Your task to perform on an android device: When is my next appointment? Image 0: 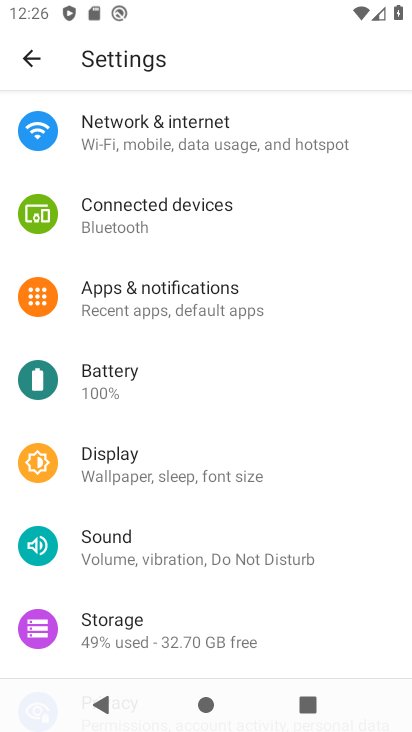
Step 0: press home button
Your task to perform on an android device: When is my next appointment? Image 1: 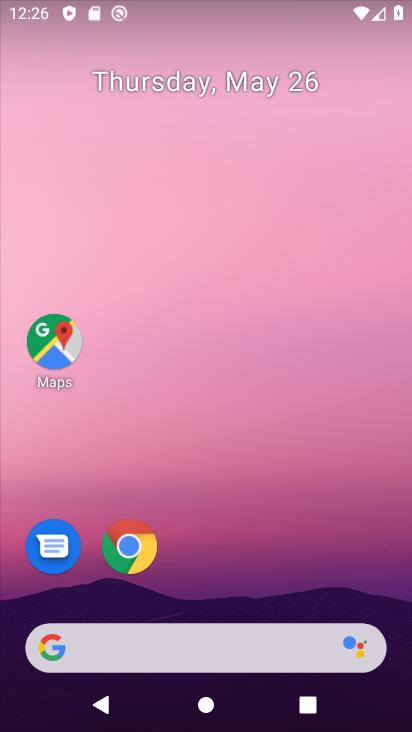
Step 1: drag from (265, 600) to (356, 46)
Your task to perform on an android device: When is my next appointment? Image 2: 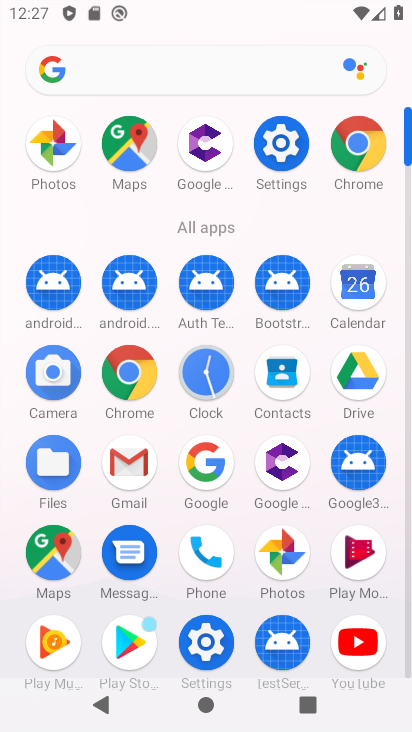
Step 2: click (369, 304)
Your task to perform on an android device: When is my next appointment? Image 3: 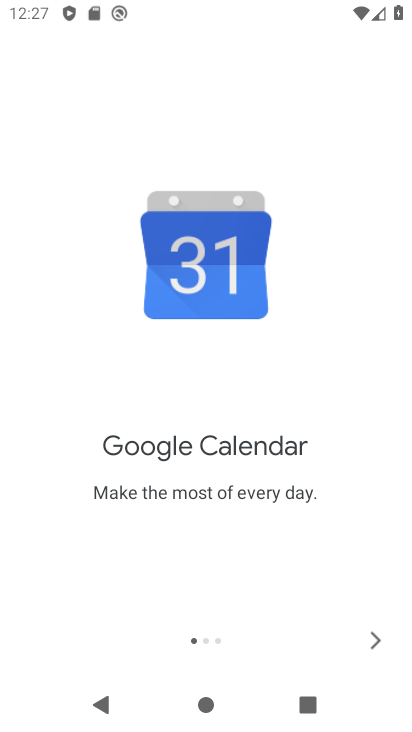
Step 3: click (377, 641)
Your task to perform on an android device: When is my next appointment? Image 4: 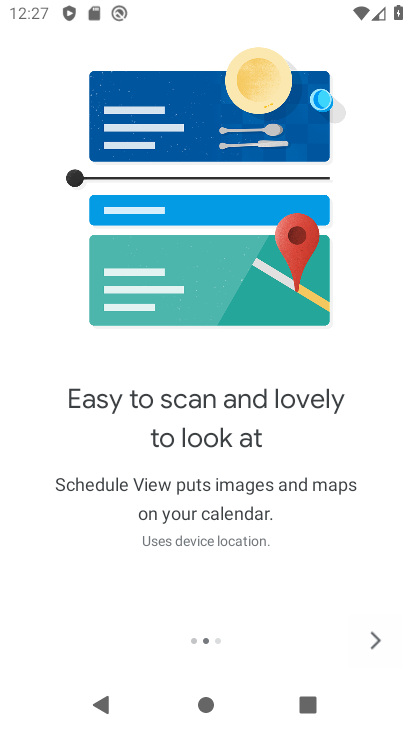
Step 4: click (377, 641)
Your task to perform on an android device: When is my next appointment? Image 5: 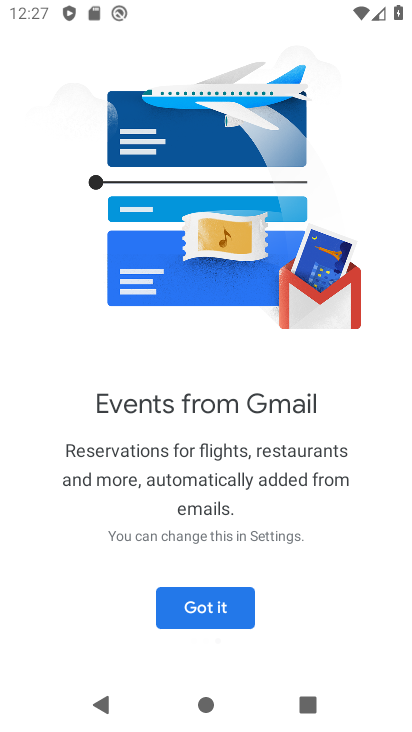
Step 5: click (377, 641)
Your task to perform on an android device: When is my next appointment? Image 6: 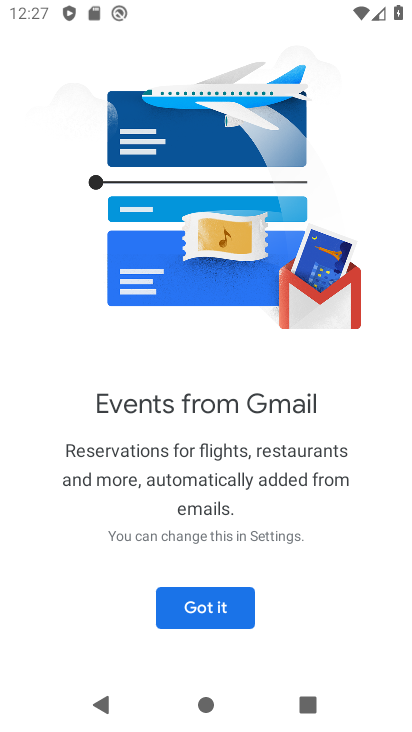
Step 6: click (250, 606)
Your task to perform on an android device: When is my next appointment? Image 7: 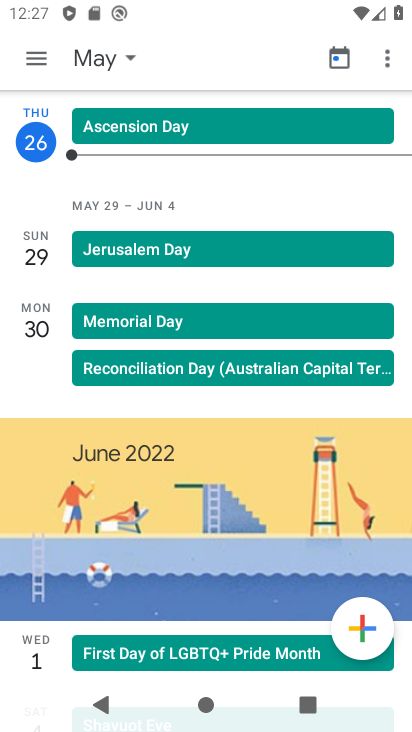
Step 7: click (131, 66)
Your task to perform on an android device: When is my next appointment? Image 8: 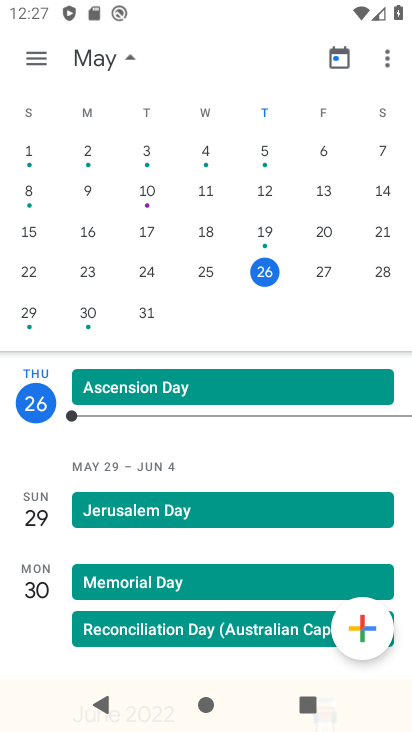
Step 8: click (131, 66)
Your task to perform on an android device: When is my next appointment? Image 9: 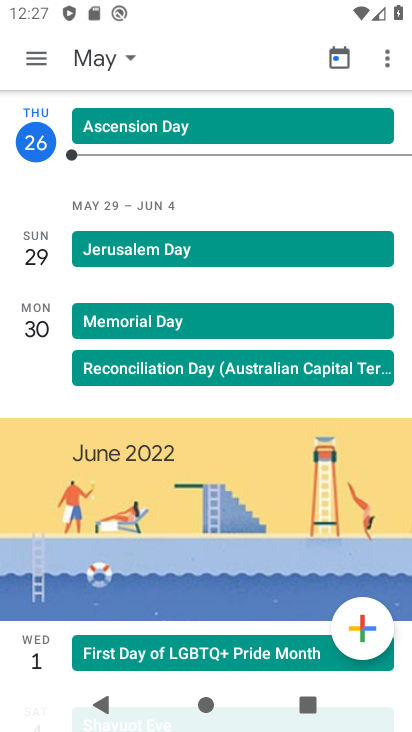
Step 9: task complete